Your task to perform on an android device: add a label to a message in the gmail app Image 0: 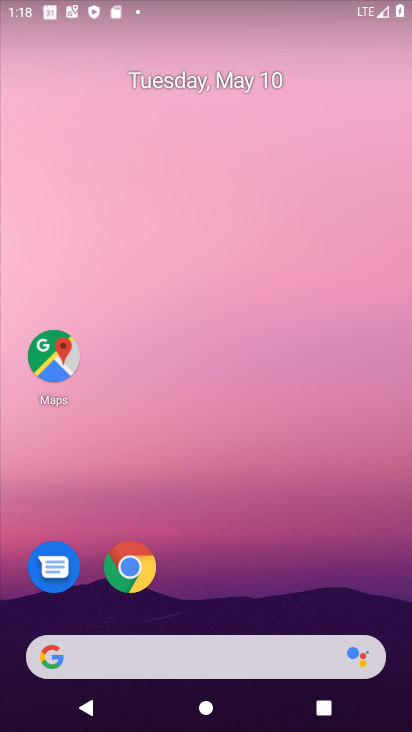
Step 0: drag from (335, 604) to (320, 6)
Your task to perform on an android device: add a label to a message in the gmail app Image 1: 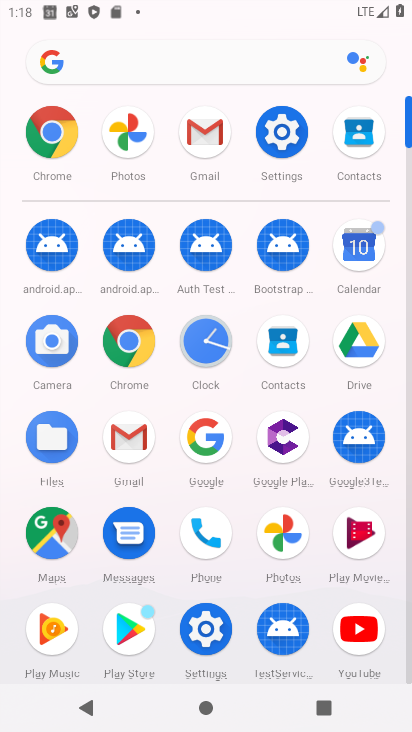
Step 1: click (139, 444)
Your task to perform on an android device: add a label to a message in the gmail app Image 2: 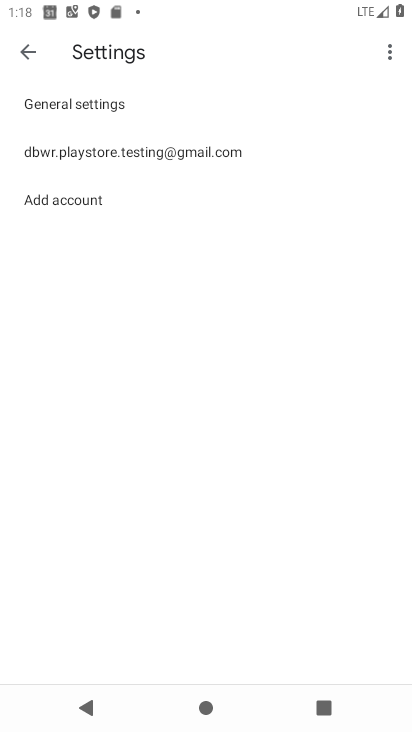
Step 2: task complete